Your task to perform on an android device: toggle wifi Image 0: 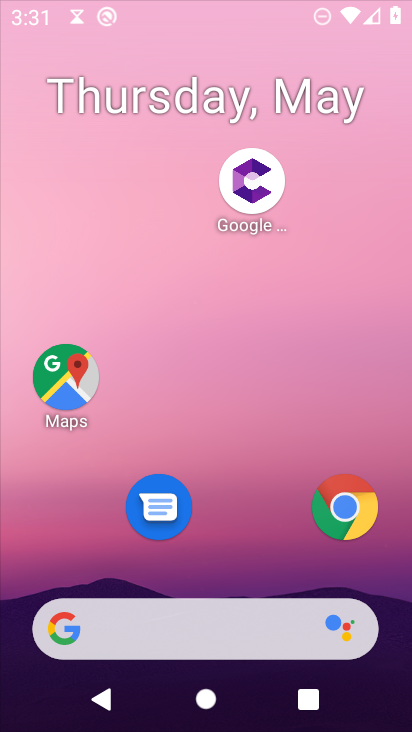
Step 0: press home button
Your task to perform on an android device: toggle wifi Image 1: 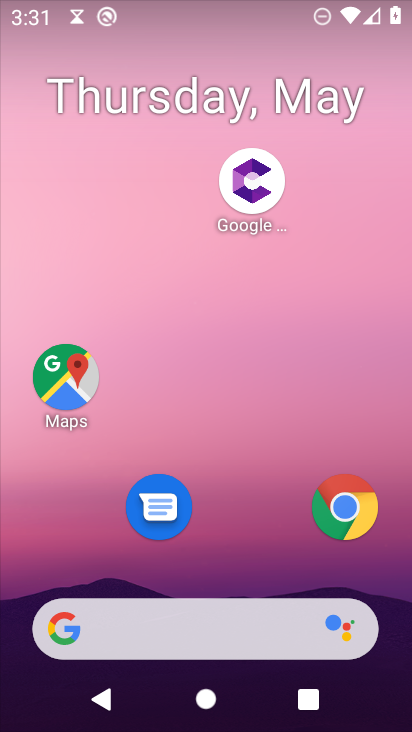
Step 1: drag from (188, 8) to (169, 465)
Your task to perform on an android device: toggle wifi Image 2: 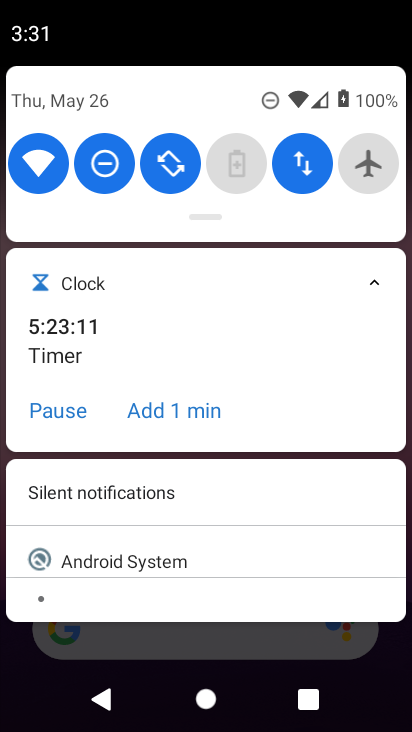
Step 2: click (43, 161)
Your task to perform on an android device: toggle wifi Image 3: 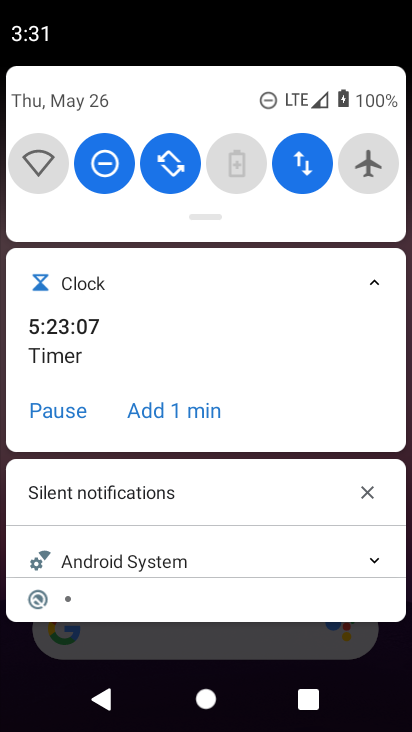
Step 3: click (290, 607)
Your task to perform on an android device: toggle wifi Image 4: 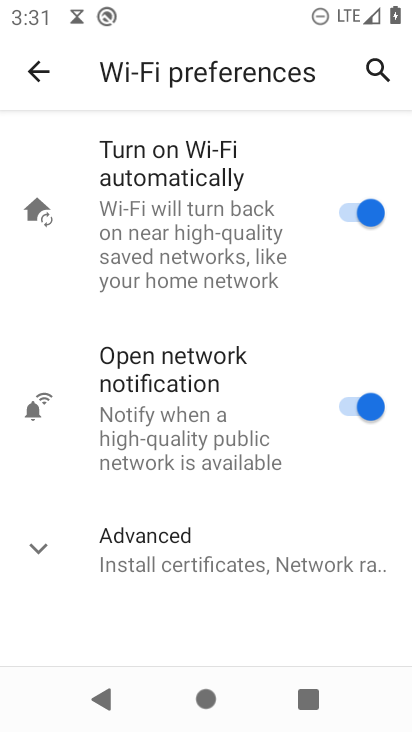
Step 4: task complete